Your task to perform on an android device: allow cookies in the chrome app Image 0: 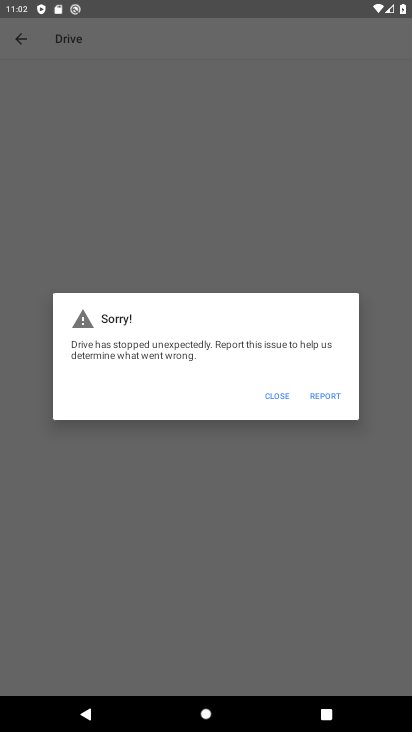
Step 0: press home button
Your task to perform on an android device: allow cookies in the chrome app Image 1: 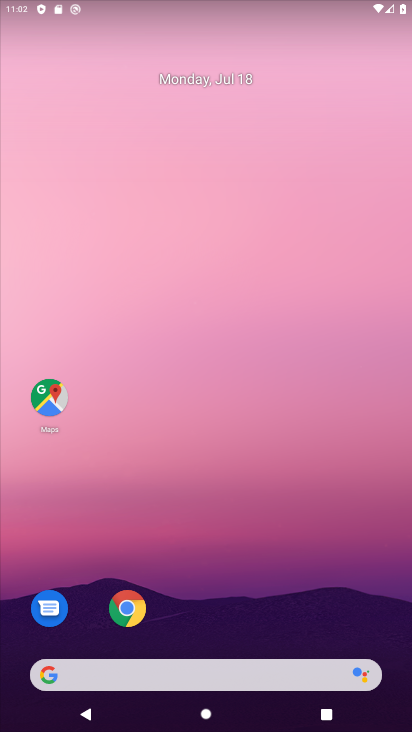
Step 1: click (132, 609)
Your task to perform on an android device: allow cookies in the chrome app Image 2: 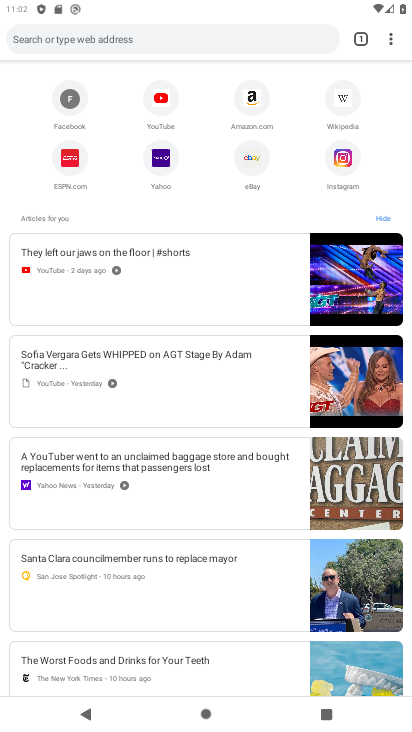
Step 2: click (394, 48)
Your task to perform on an android device: allow cookies in the chrome app Image 3: 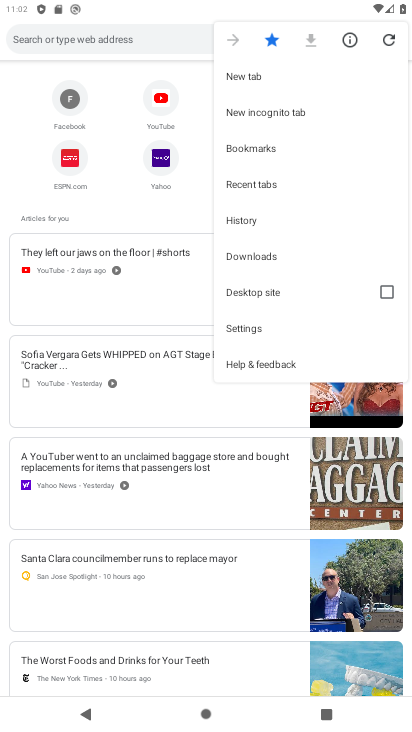
Step 3: click (262, 332)
Your task to perform on an android device: allow cookies in the chrome app Image 4: 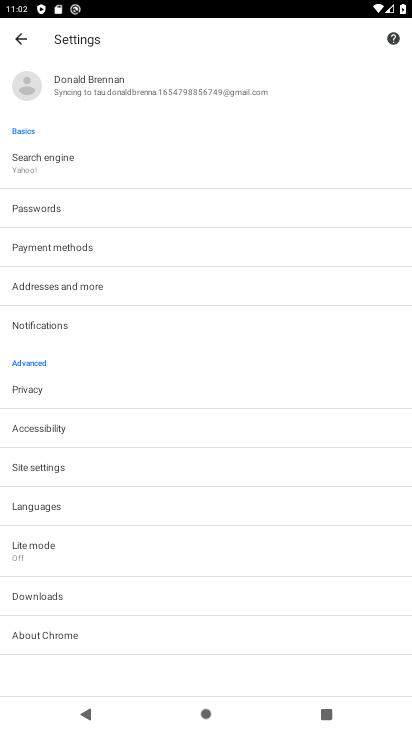
Step 4: click (153, 469)
Your task to perform on an android device: allow cookies in the chrome app Image 5: 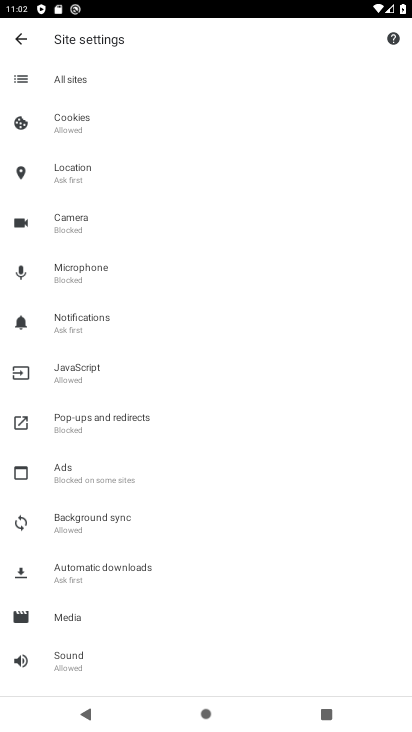
Step 5: click (149, 130)
Your task to perform on an android device: allow cookies in the chrome app Image 6: 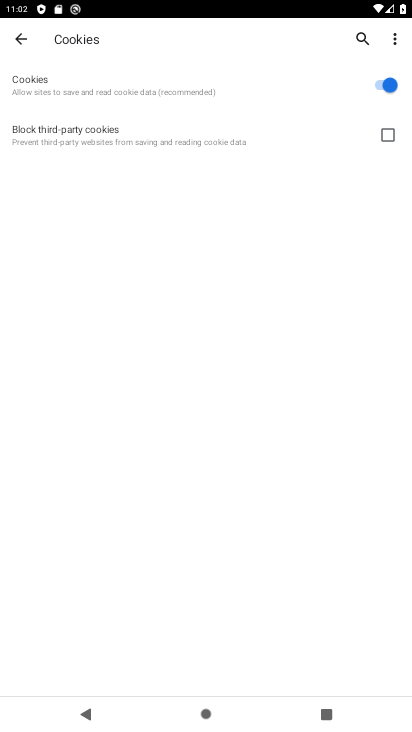
Step 6: task complete